Your task to perform on an android device: Is it going to rain today? Image 0: 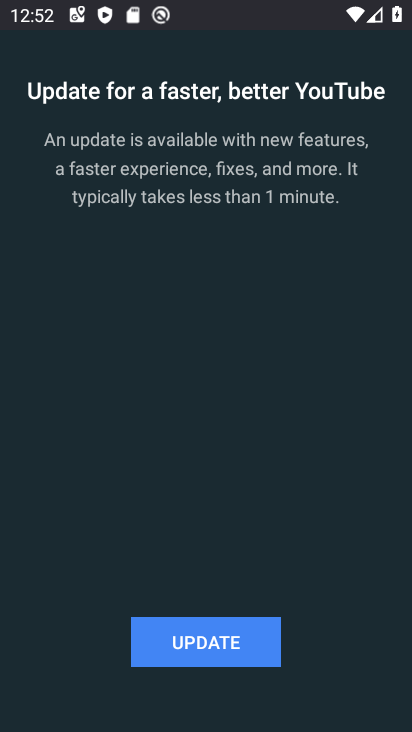
Step 0: press home button
Your task to perform on an android device: Is it going to rain today? Image 1: 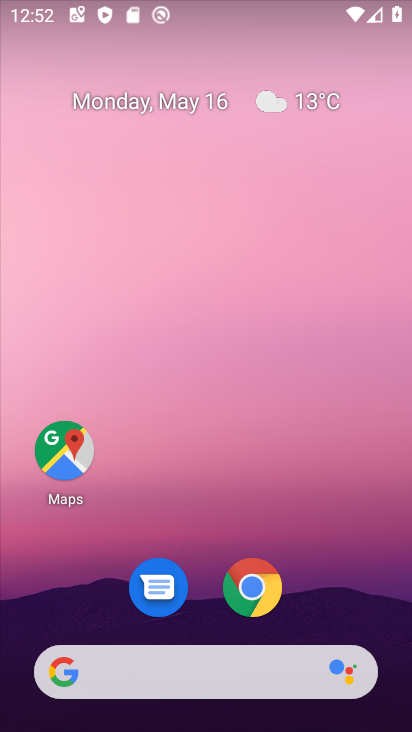
Step 1: click (273, 107)
Your task to perform on an android device: Is it going to rain today? Image 2: 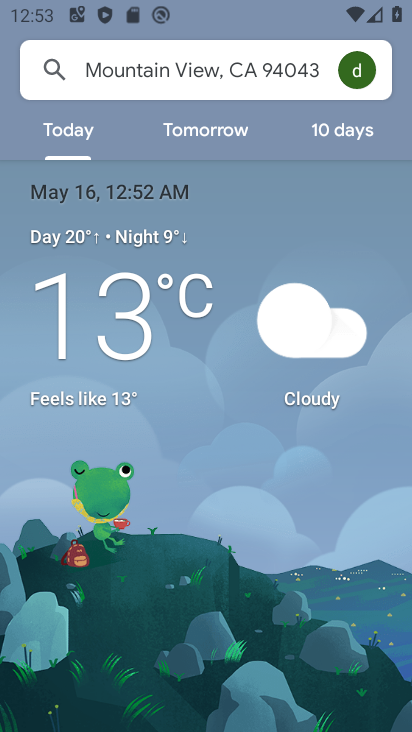
Step 2: task complete